Your task to perform on an android device: search for starred emails in the gmail app Image 0: 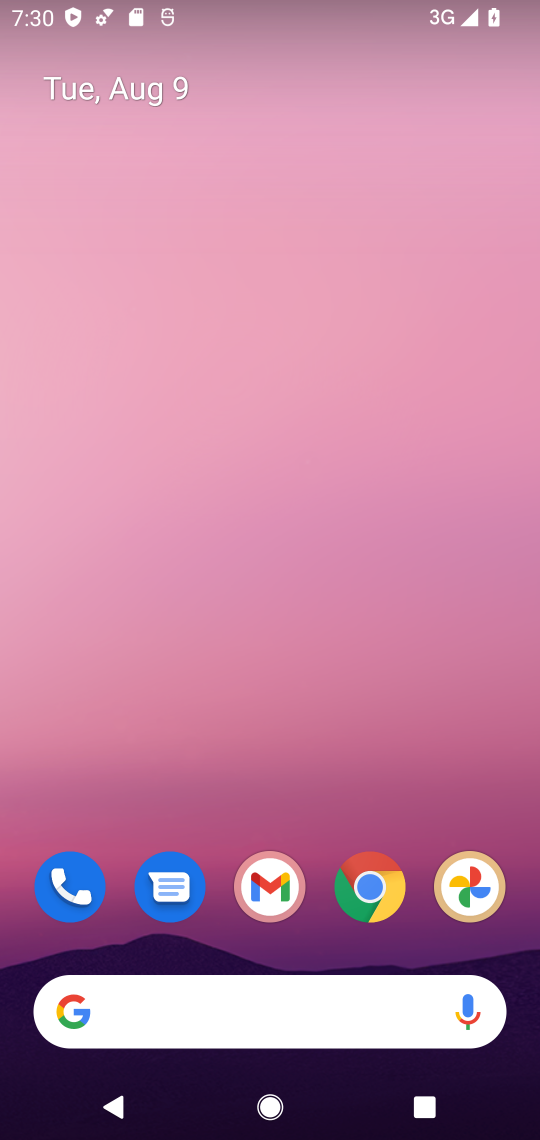
Step 0: click (280, 878)
Your task to perform on an android device: search for starred emails in the gmail app Image 1: 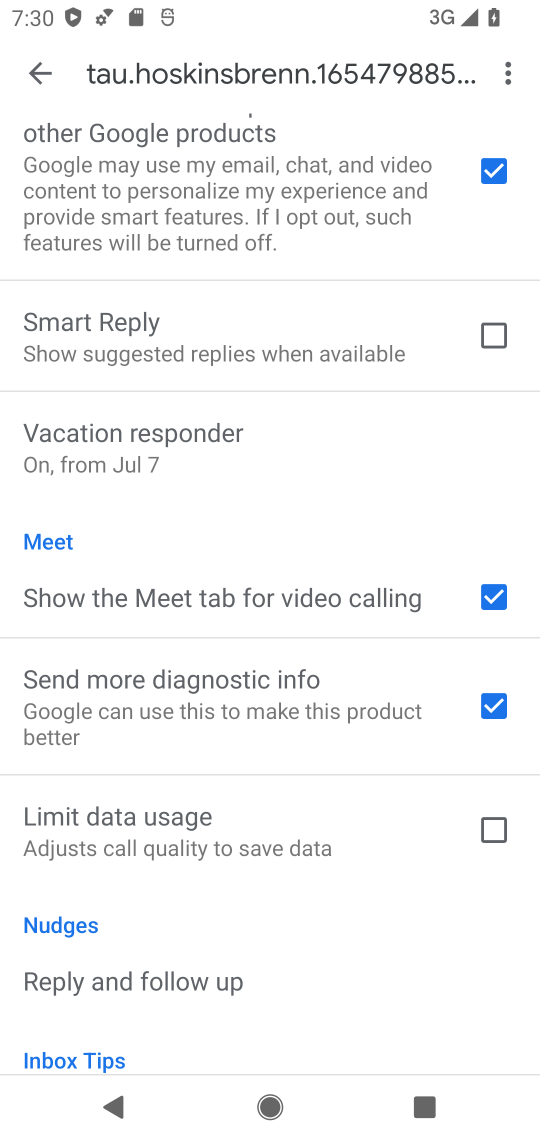
Step 1: click (43, 63)
Your task to perform on an android device: search for starred emails in the gmail app Image 2: 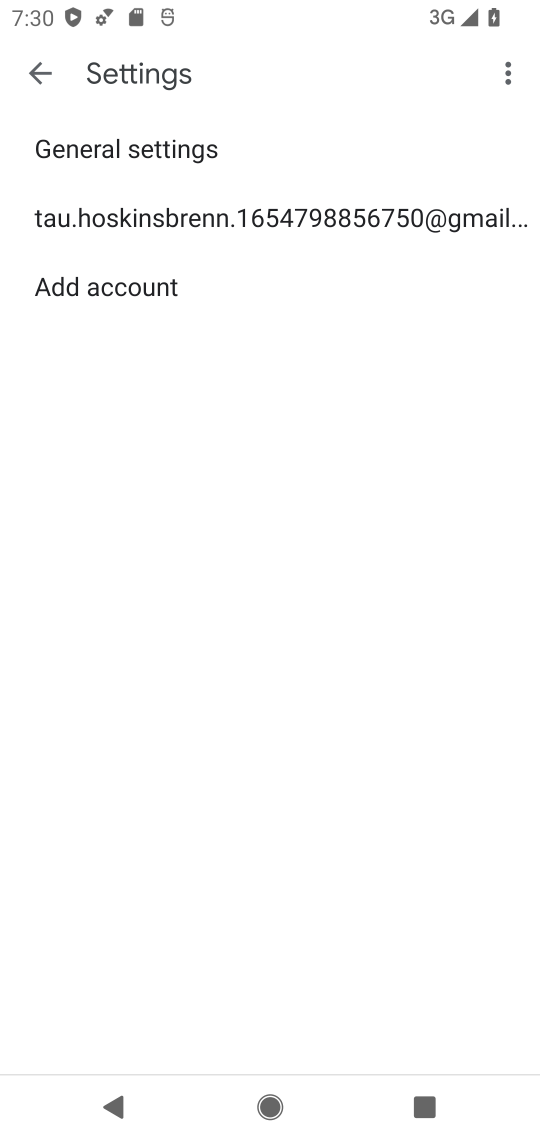
Step 2: click (43, 63)
Your task to perform on an android device: search for starred emails in the gmail app Image 3: 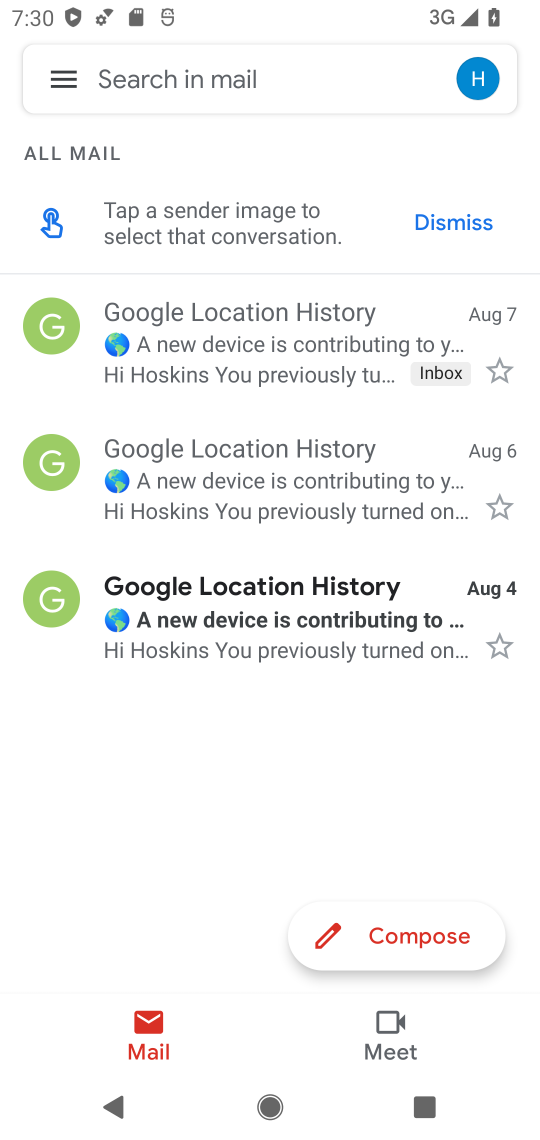
Step 3: click (60, 67)
Your task to perform on an android device: search for starred emails in the gmail app Image 4: 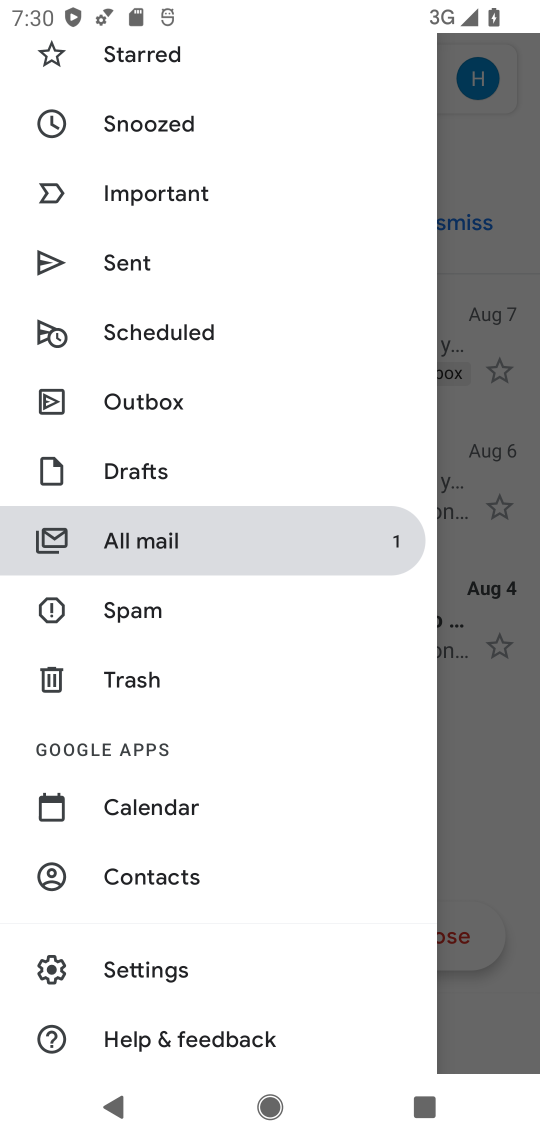
Step 4: click (140, 61)
Your task to perform on an android device: search for starred emails in the gmail app Image 5: 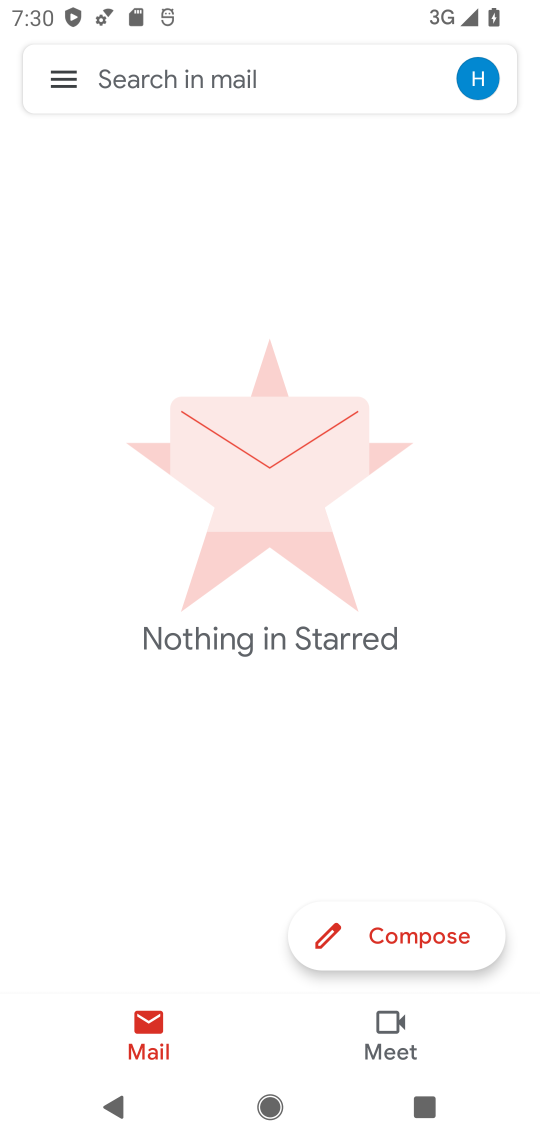
Step 5: task complete